Your task to perform on an android device: When is my next appointment? Image 0: 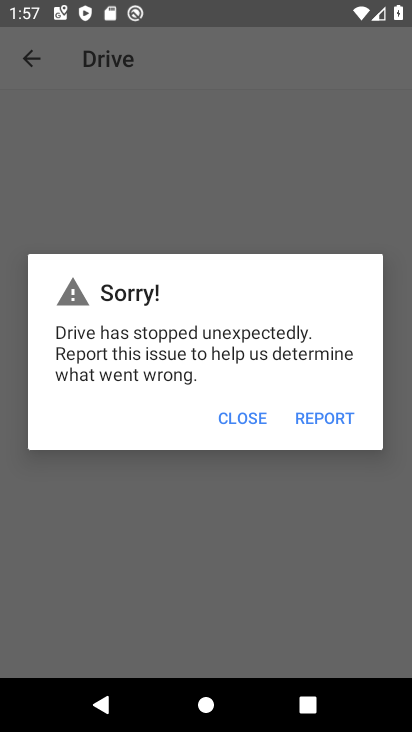
Step 0: press home button
Your task to perform on an android device: When is my next appointment? Image 1: 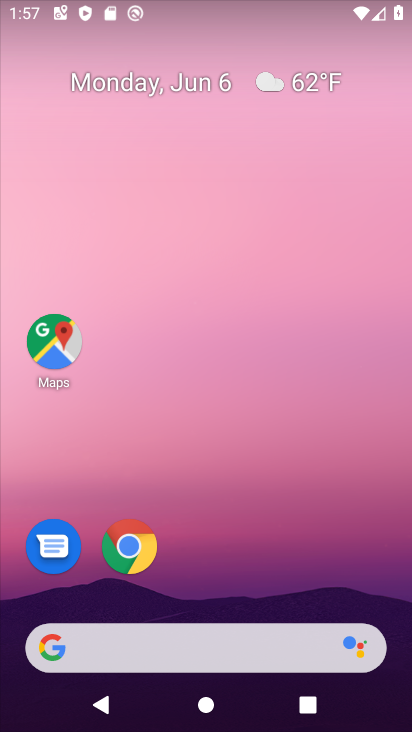
Step 1: drag from (280, 515) to (317, 195)
Your task to perform on an android device: When is my next appointment? Image 2: 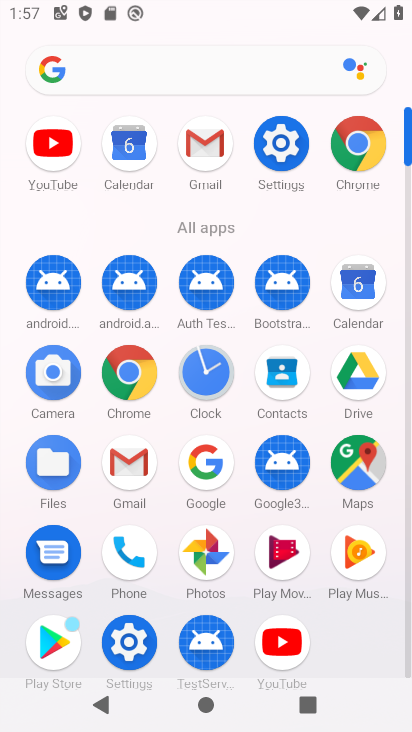
Step 2: click (354, 287)
Your task to perform on an android device: When is my next appointment? Image 3: 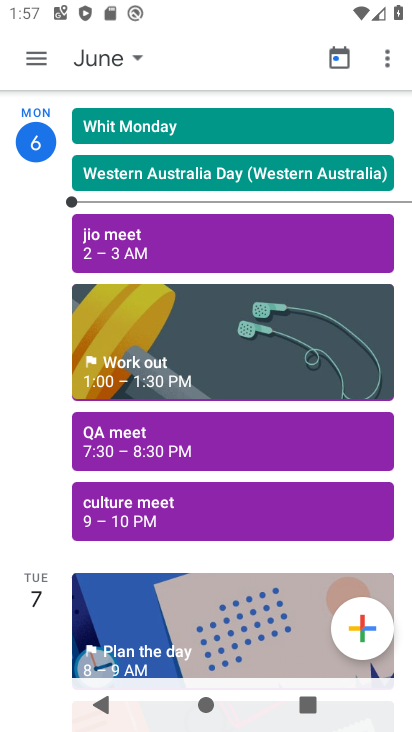
Step 3: task complete